Your task to perform on an android device: Open Google Image 0: 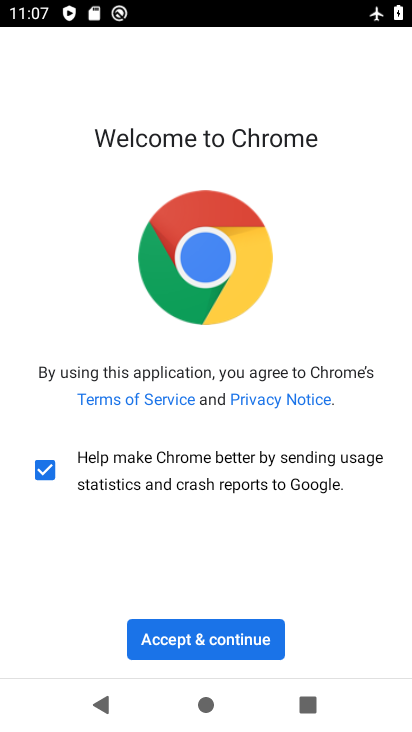
Step 0: press home button
Your task to perform on an android device: Open Google Image 1: 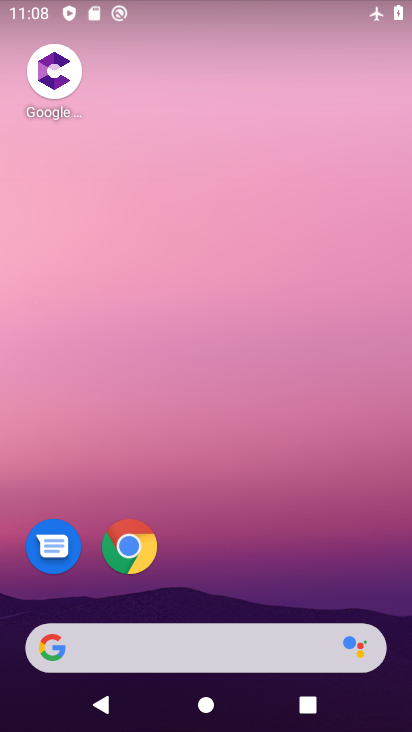
Step 1: drag from (199, 633) to (317, 61)
Your task to perform on an android device: Open Google Image 2: 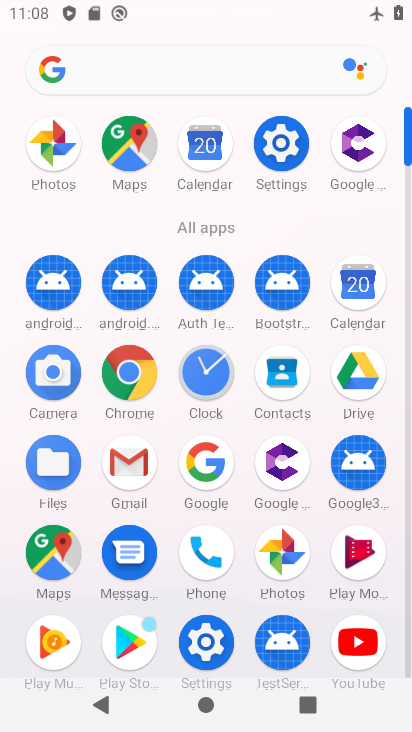
Step 2: click (205, 480)
Your task to perform on an android device: Open Google Image 3: 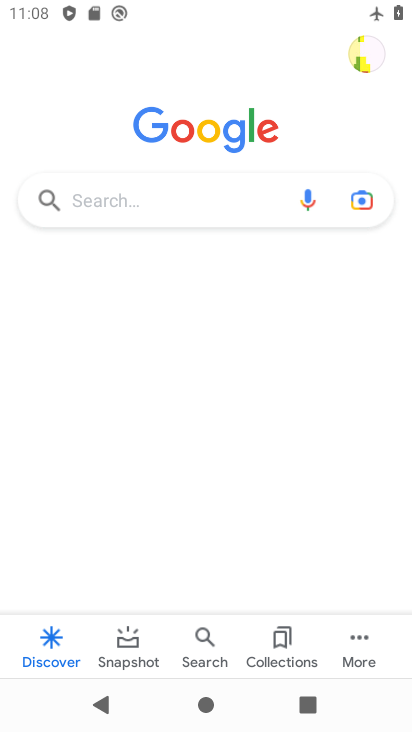
Step 3: task complete